Your task to perform on an android device: Search for usb-b on bestbuy.com, select the first entry, and add it to the cart. Image 0: 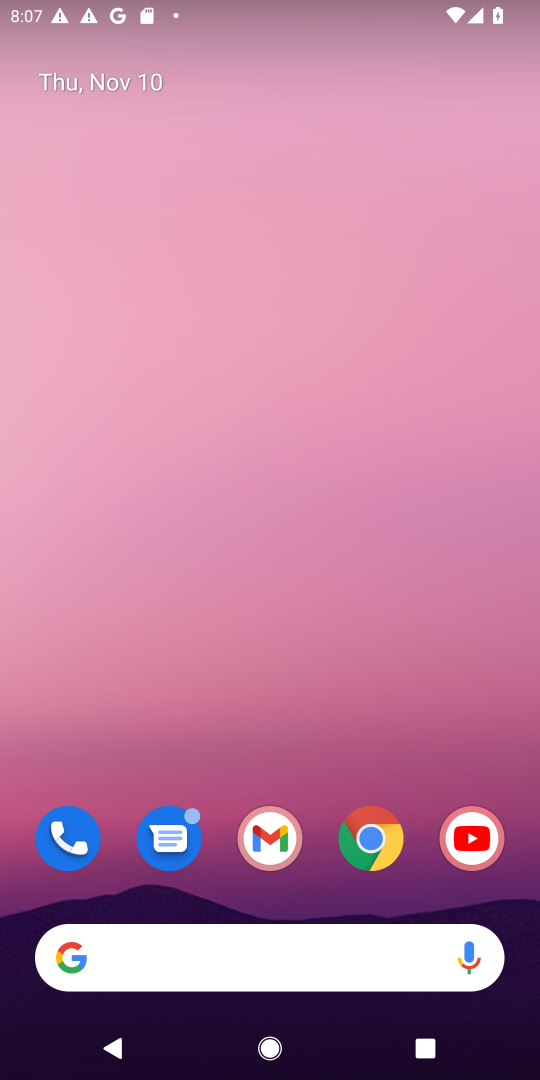
Step 0: drag from (323, 800) to (270, 1)
Your task to perform on an android device: Search for usb-b on bestbuy.com, select the first entry, and add it to the cart. Image 1: 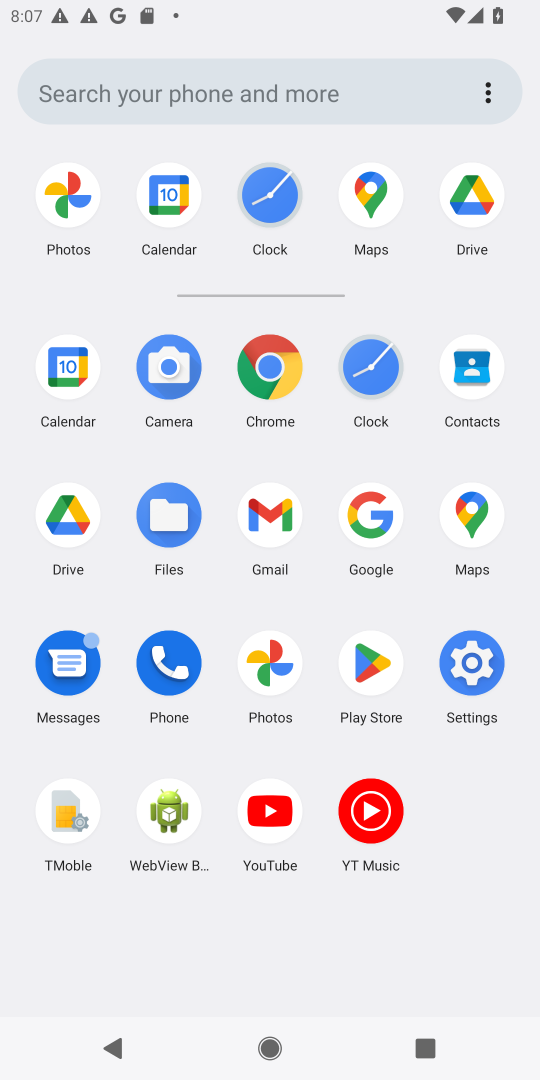
Step 1: click (263, 365)
Your task to perform on an android device: Search for usb-b on bestbuy.com, select the first entry, and add it to the cart. Image 2: 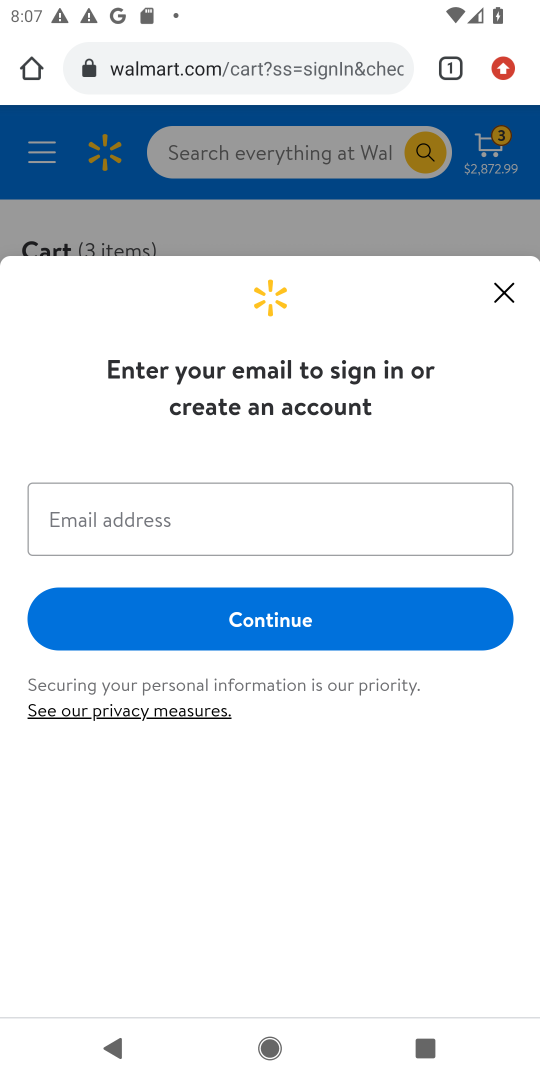
Step 2: click (252, 82)
Your task to perform on an android device: Search for usb-b on bestbuy.com, select the first entry, and add it to the cart. Image 3: 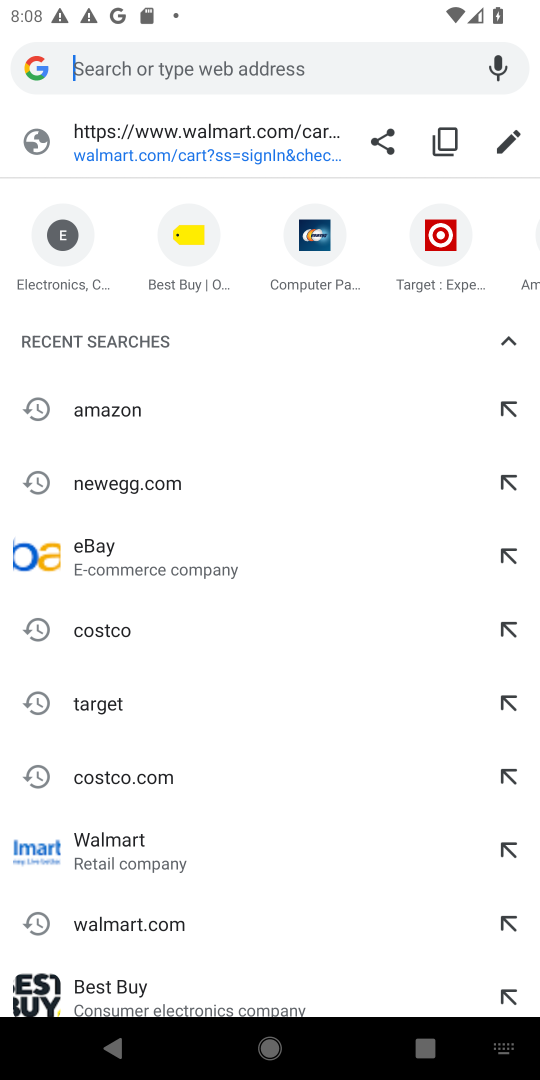
Step 3: type "bestbuy.com"
Your task to perform on an android device: Search for usb-b on bestbuy.com, select the first entry, and add it to the cart. Image 4: 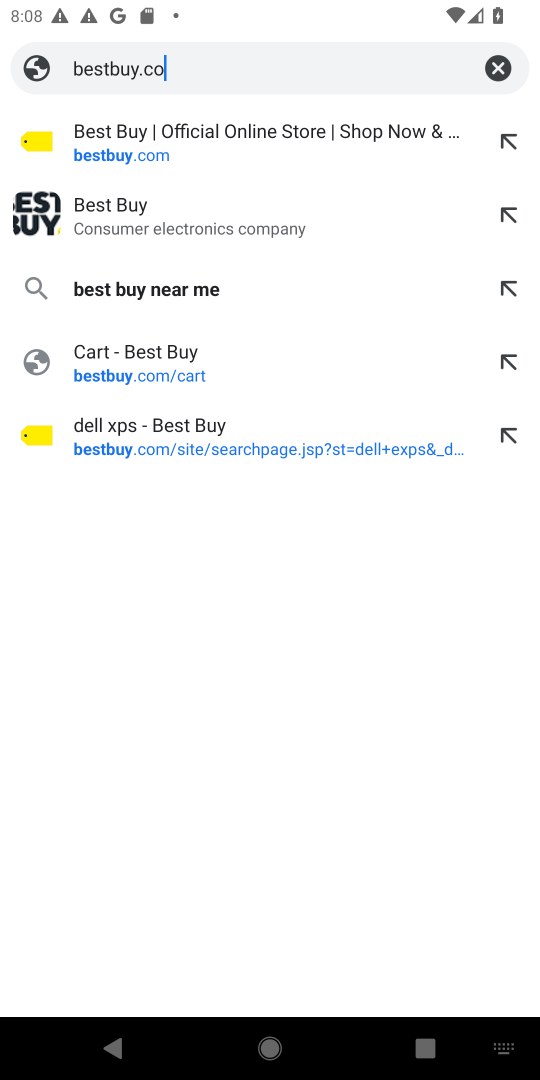
Step 4: press enter
Your task to perform on an android device: Search for usb-b on bestbuy.com, select the first entry, and add it to the cart. Image 5: 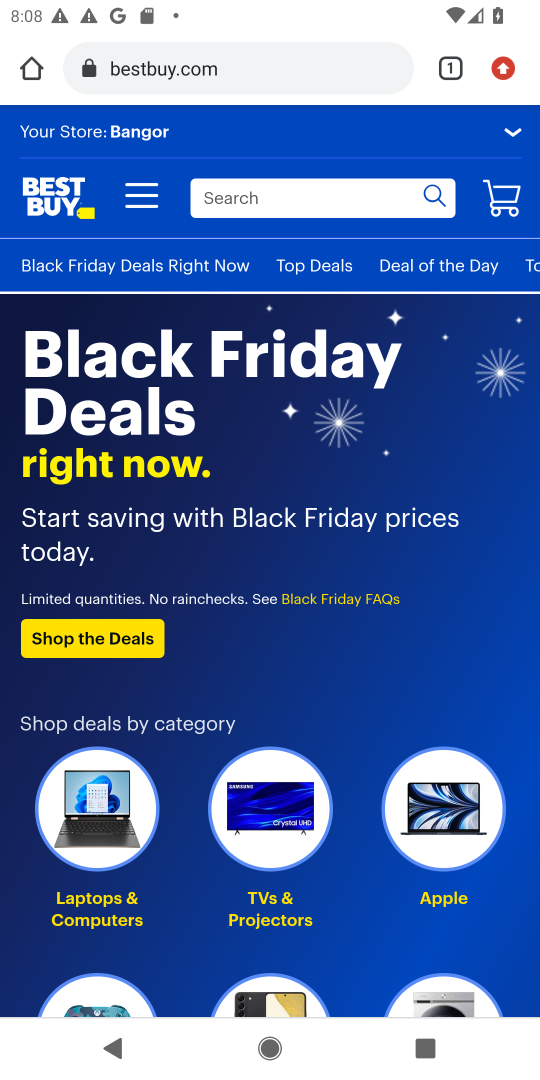
Step 5: click (311, 202)
Your task to perform on an android device: Search for usb-b on bestbuy.com, select the first entry, and add it to the cart. Image 6: 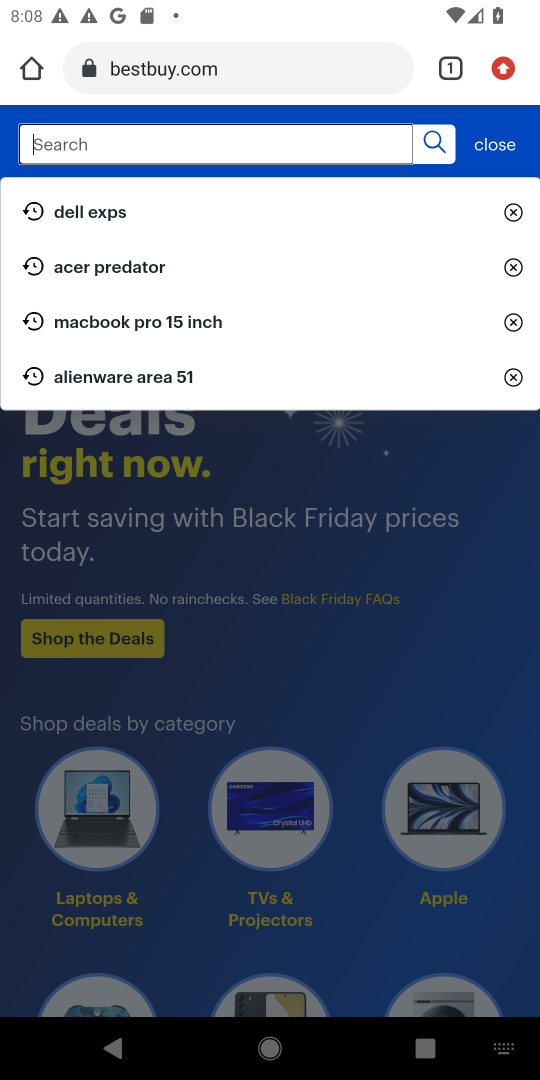
Step 6: type "usb-b"
Your task to perform on an android device: Search for usb-b on bestbuy.com, select the first entry, and add it to the cart. Image 7: 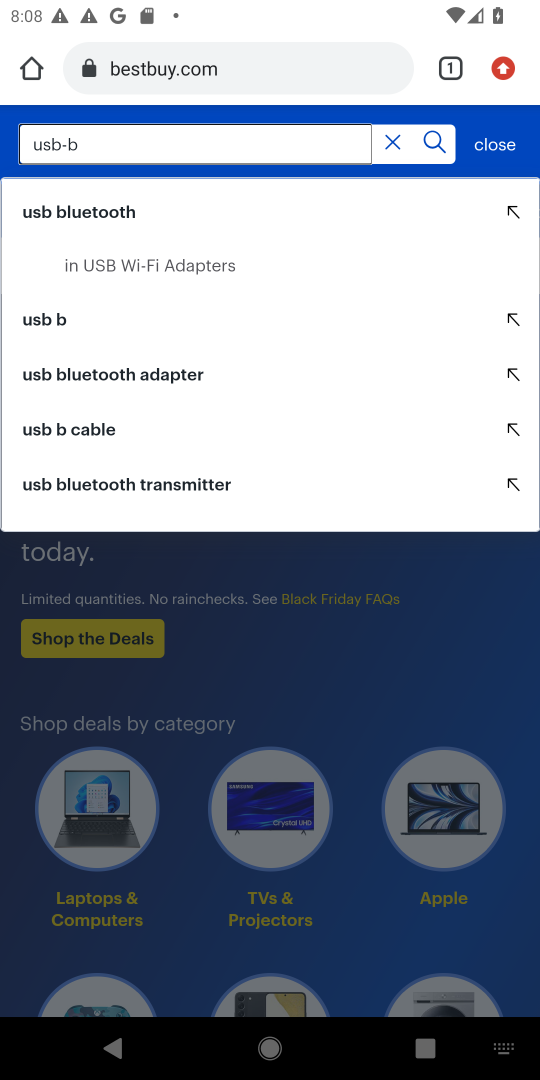
Step 7: press enter
Your task to perform on an android device: Search for usb-b on bestbuy.com, select the first entry, and add it to the cart. Image 8: 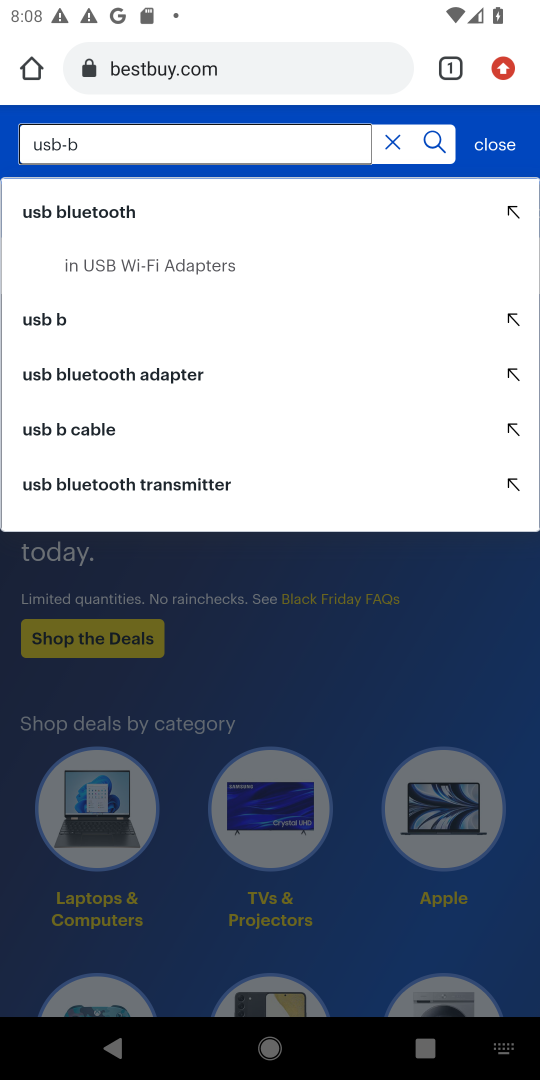
Step 8: press enter
Your task to perform on an android device: Search for usb-b on bestbuy.com, select the first entry, and add it to the cart. Image 9: 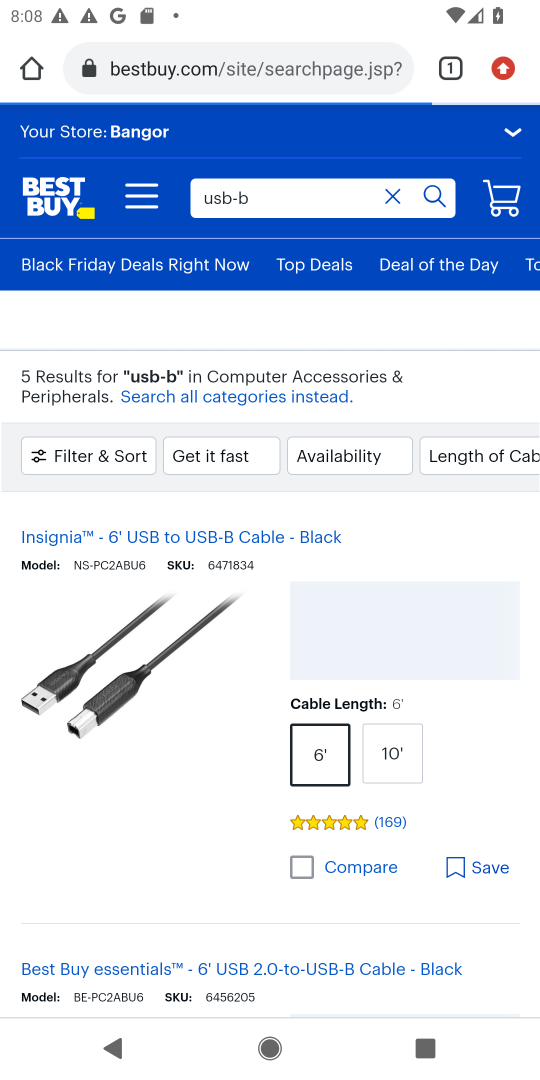
Step 9: drag from (231, 860) to (297, 625)
Your task to perform on an android device: Search for usb-b on bestbuy.com, select the first entry, and add it to the cart. Image 10: 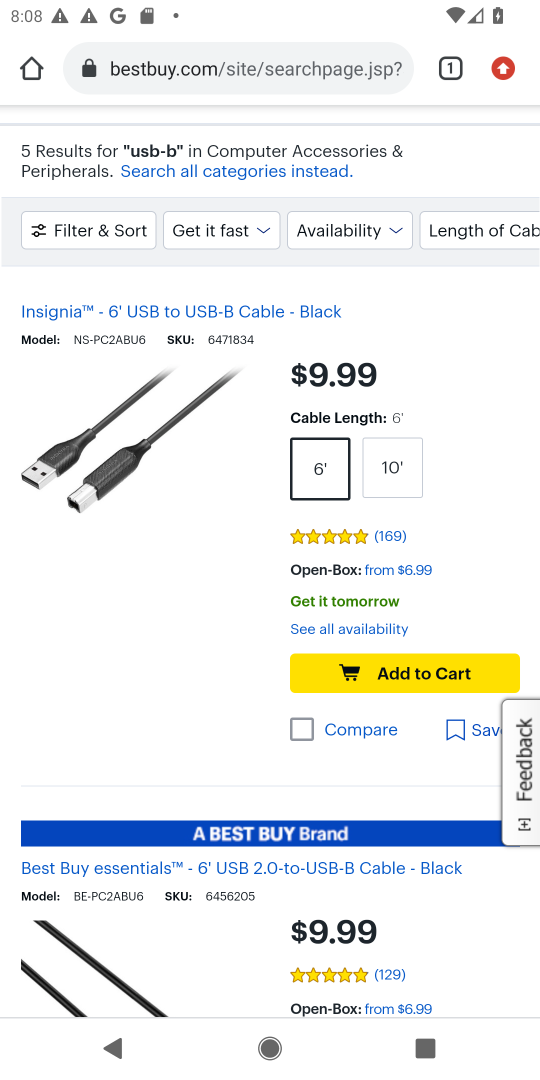
Step 10: click (429, 681)
Your task to perform on an android device: Search for usb-b on bestbuy.com, select the first entry, and add it to the cart. Image 11: 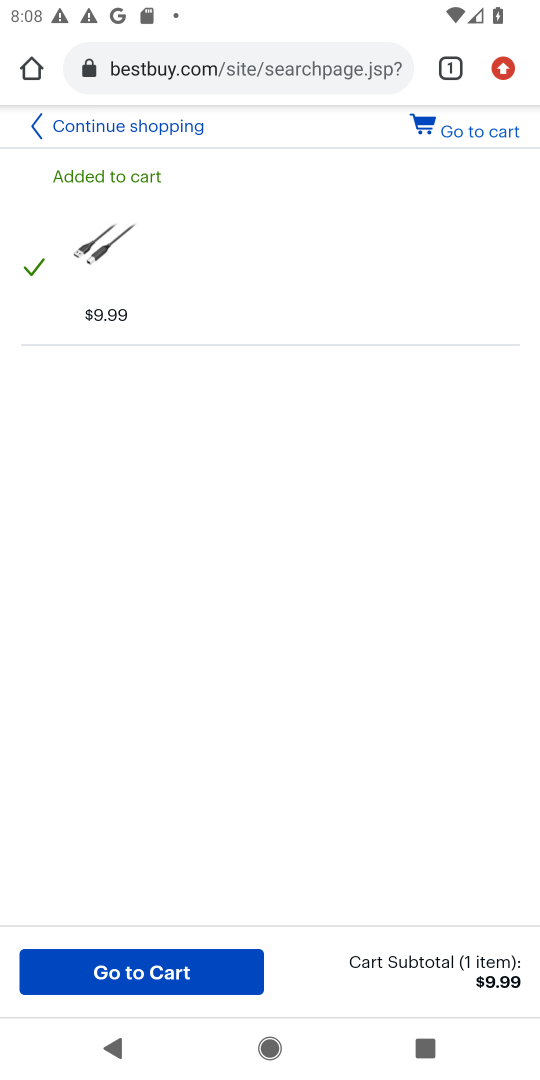
Step 11: task complete